Your task to perform on an android device: Search for vegetarian restaurants on Maps Image 0: 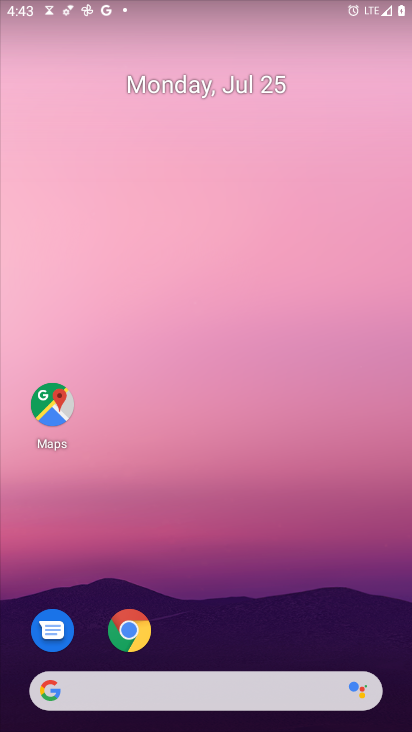
Step 0: click (50, 403)
Your task to perform on an android device: Search for vegetarian restaurants on Maps Image 1: 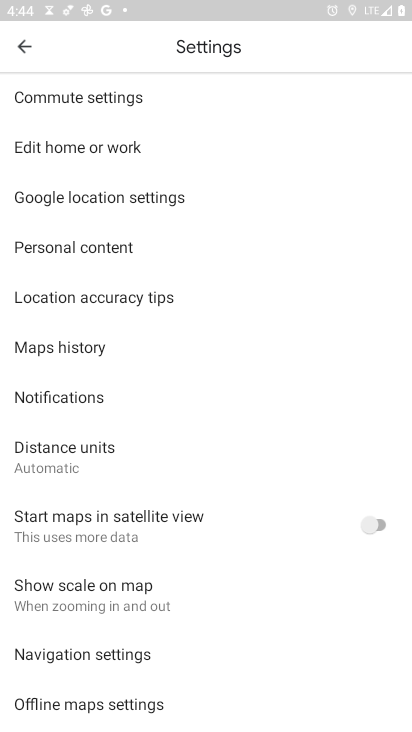
Step 1: press back button
Your task to perform on an android device: Search for vegetarian restaurants on Maps Image 2: 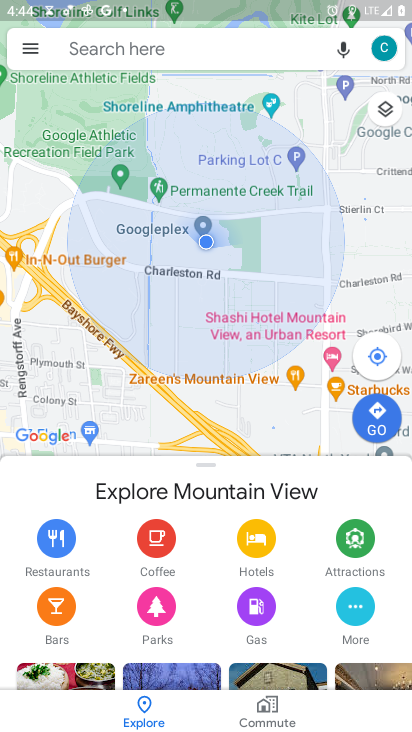
Step 2: click (177, 42)
Your task to perform on an android device: Search for vegetarian restaurants on Maps Image 3: 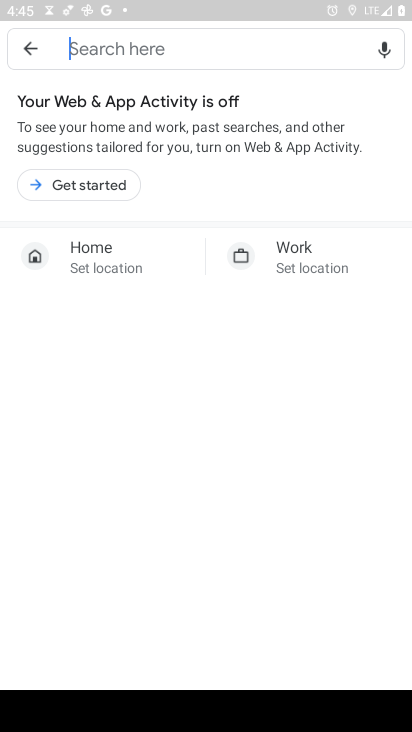
Step 3: type "vegetarian restaurants"
Your task to perform on an android device: Search for vegetarian restaurants on Maps Image 4: 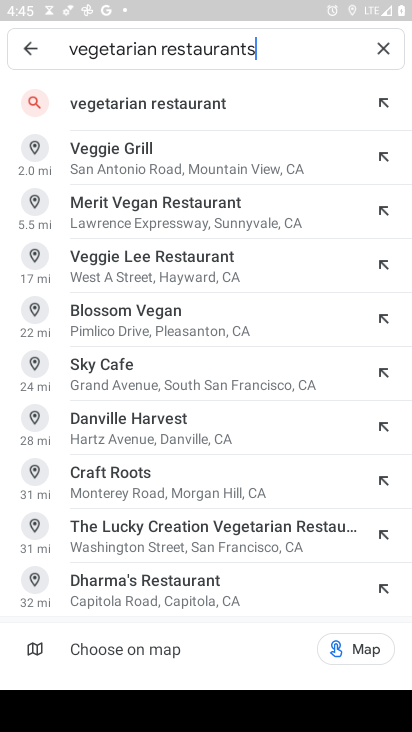
Step 4: click (124, 104)
Your task to perform on an android device: Search for vegetarian restaurants on Maps Image 5: 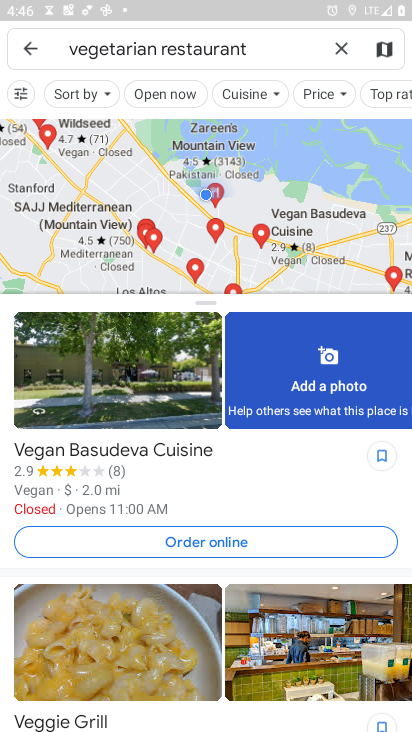
Step 5: task complete